Your task to perform on an android device: turn off notifications settings in the gmail app Image 0: 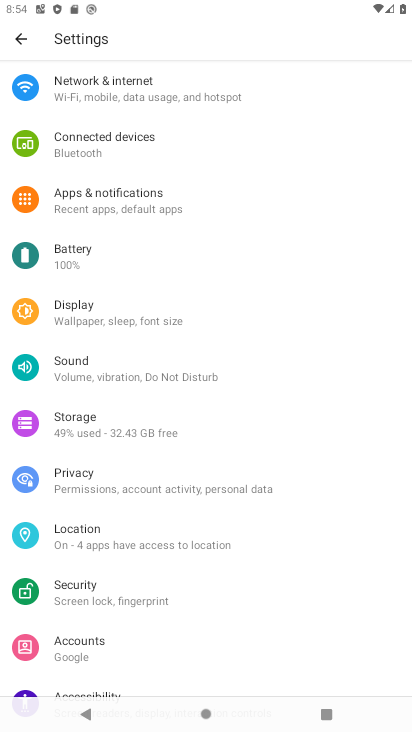
Step 0: press home button
Your task to perform on an android device: turn off notifications settings in the gmail app Image 1: 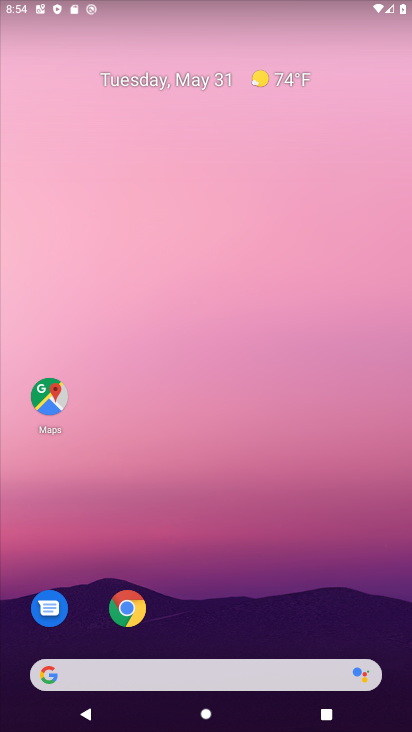
Step 1: drag from (232, 647) to (155, 45)
Your task to perform on an android device: turn off notifications settings in the gmail app Image 2: 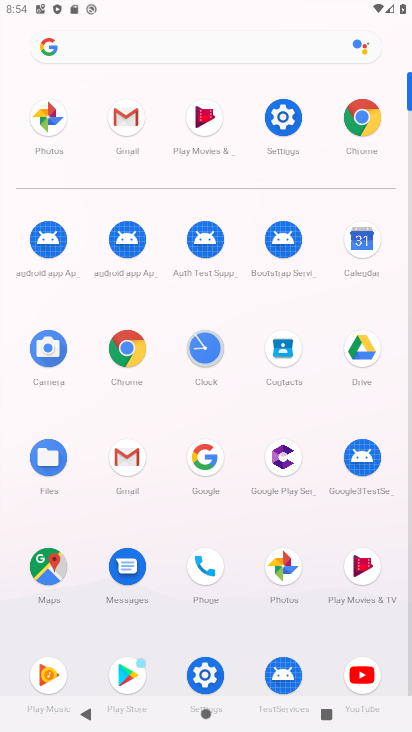
Step 2: click (128, 452)
Your task to perform on an android device: turn off notifications settings in the gmail app Image 3: 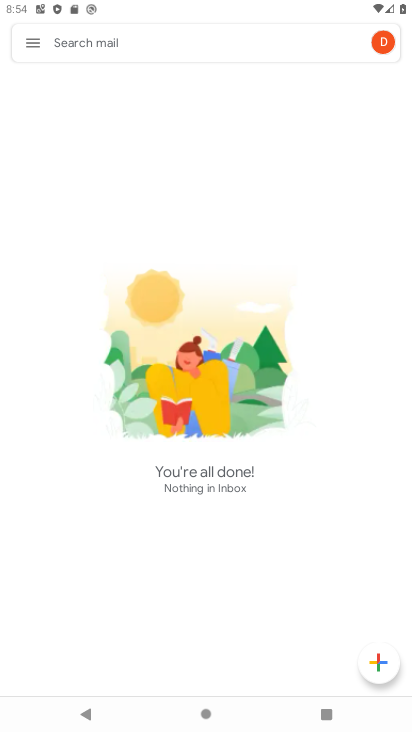
Step 3: click (35, 47)
Your task to perform on an android device: turn off notifications settings in the gmail app Image 4: 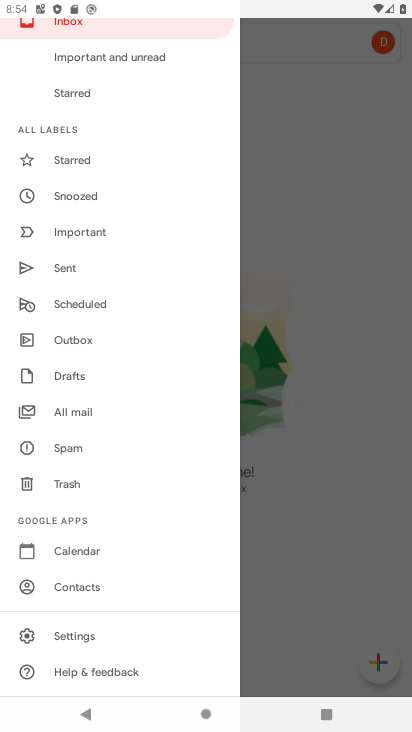
Step 4: click (71, 630)
Your task to perform on an android device: turn off notifications settings in the gmail app Image 5: 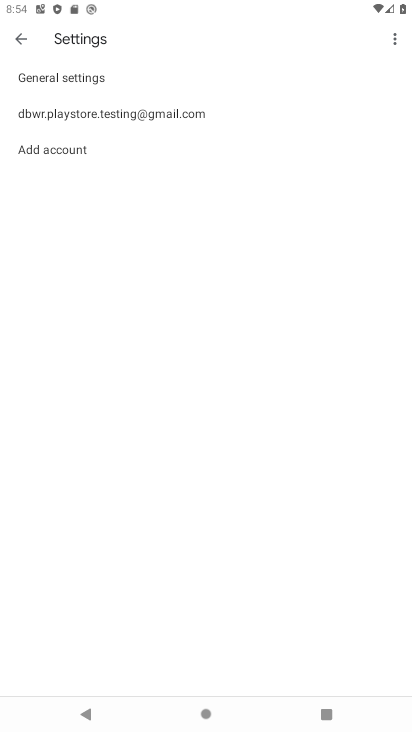
Step 5: click (46, 82)
Your task to perform on an android device: turn off notifications settings in the gmail app Image 6: 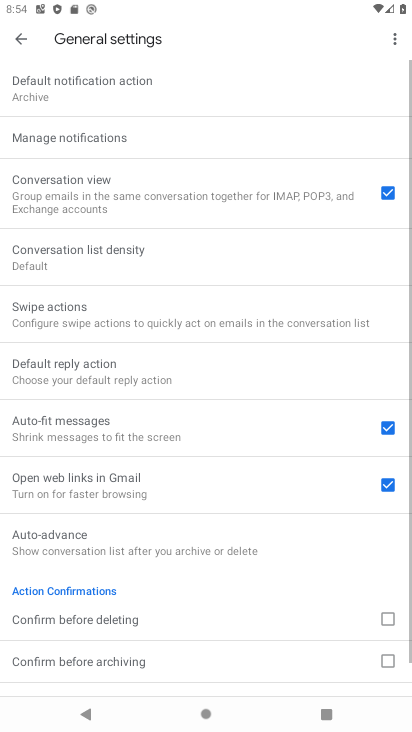
Step 6: click (85, 137)
Your task to perform on an android device: turn off notifications settings in the gmail app Image 7: 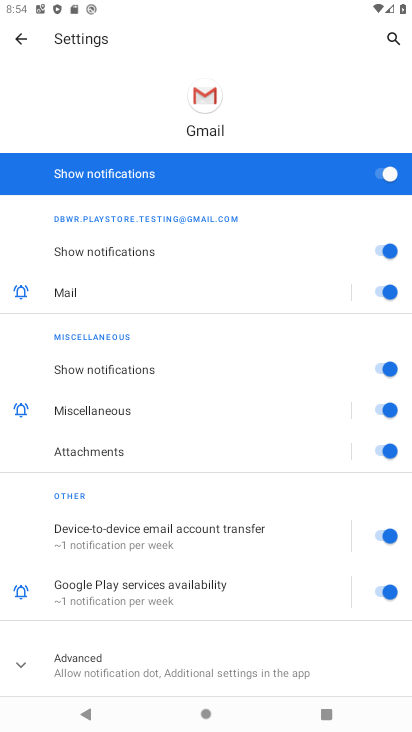
Step 7: click (383, 175)
Your task to perform on an android device: turn off notifications settings in the gmail app Image 8: 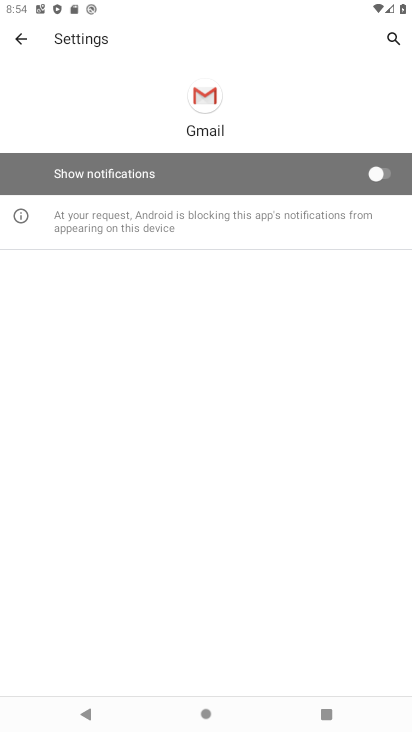
Step 8: task complete